Your task to perform on an android device: Show me popular games on the Play Store Image 0: 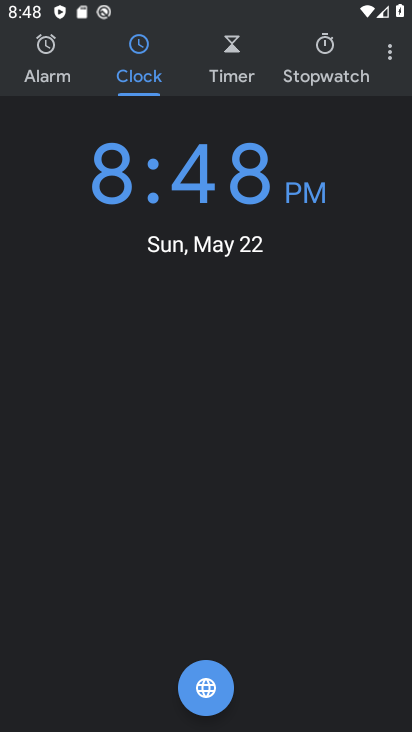
Step 0: press home button
Your task to perform on an android device: Show me popular games on the Play Store Image 1: 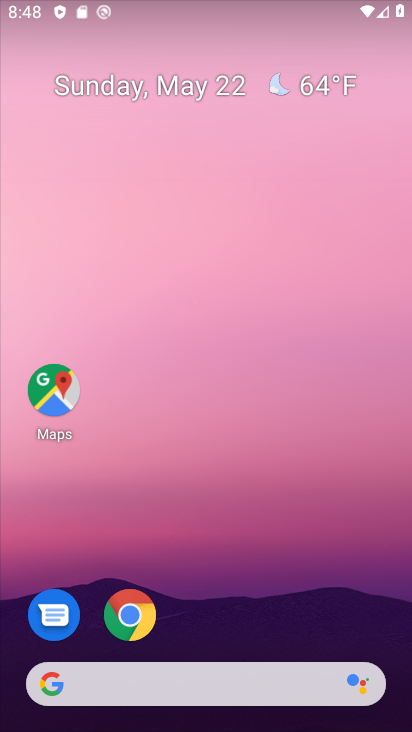
Step 1: drag from (262, 511) to (265, 217)
Your task to perform on an android device: Show me popular games on the Play Store Image 2: 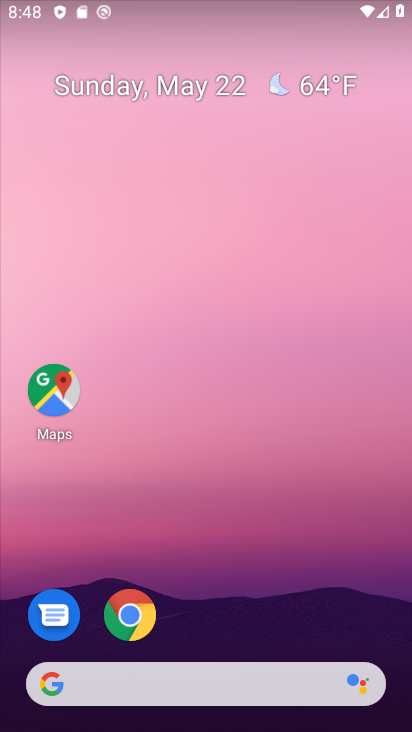
Step 2: drag from (255, 605) to (302, 129)
Your task to perform on an android device: Show me popular games on the Play Store Image 3: 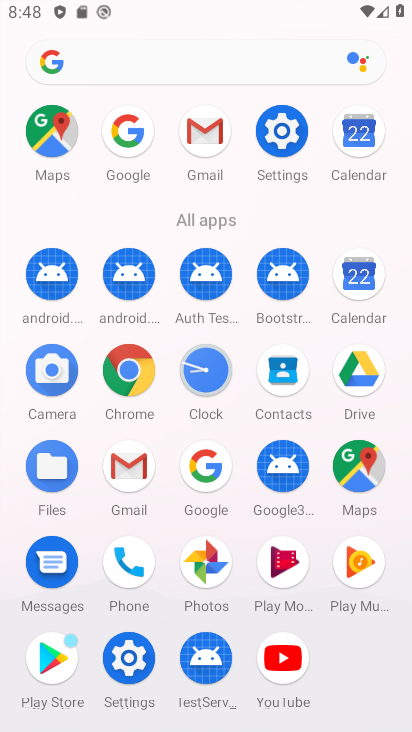
Step 3: drag from (235, 624) to (262, 453)
Your task to perform on an android device: Show me popular games on the Play Store Image 4: 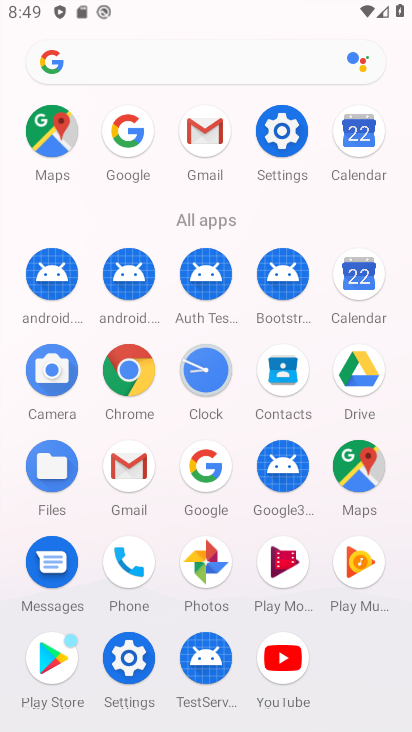
Step 4: click (62, 660)
Your task to perform on an android device: Show me popular games on the Play Store Image 5: 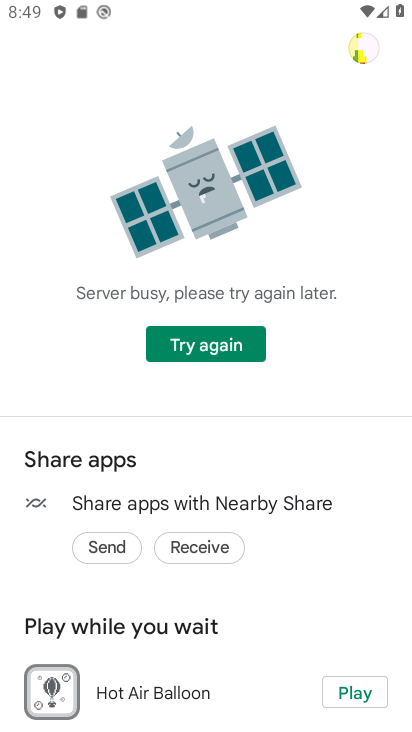
Step 5: task complete